Your task to perform on an android device: Open Wikipedia Image 0: 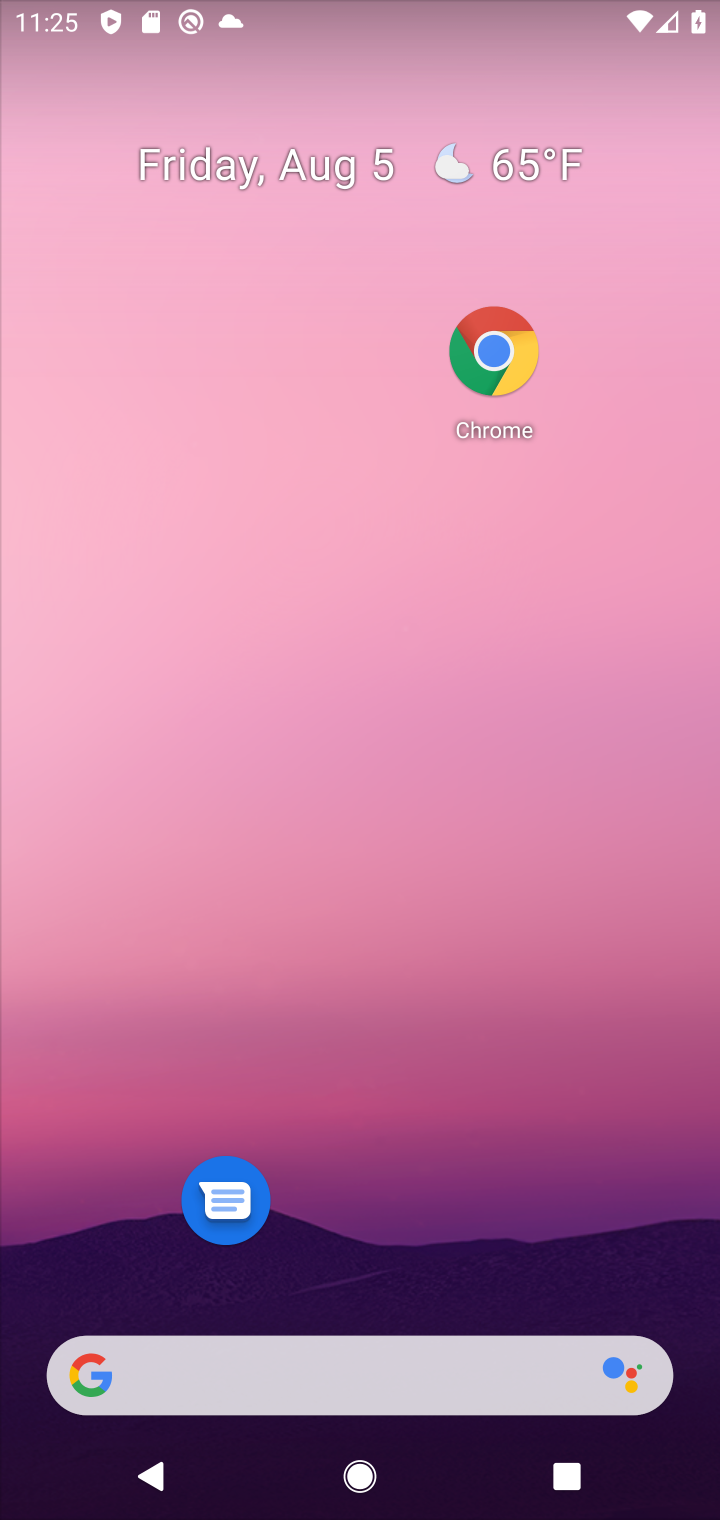
Step 0: press home button
Your task to perform on an android device: Open Wikipedia Image 1: 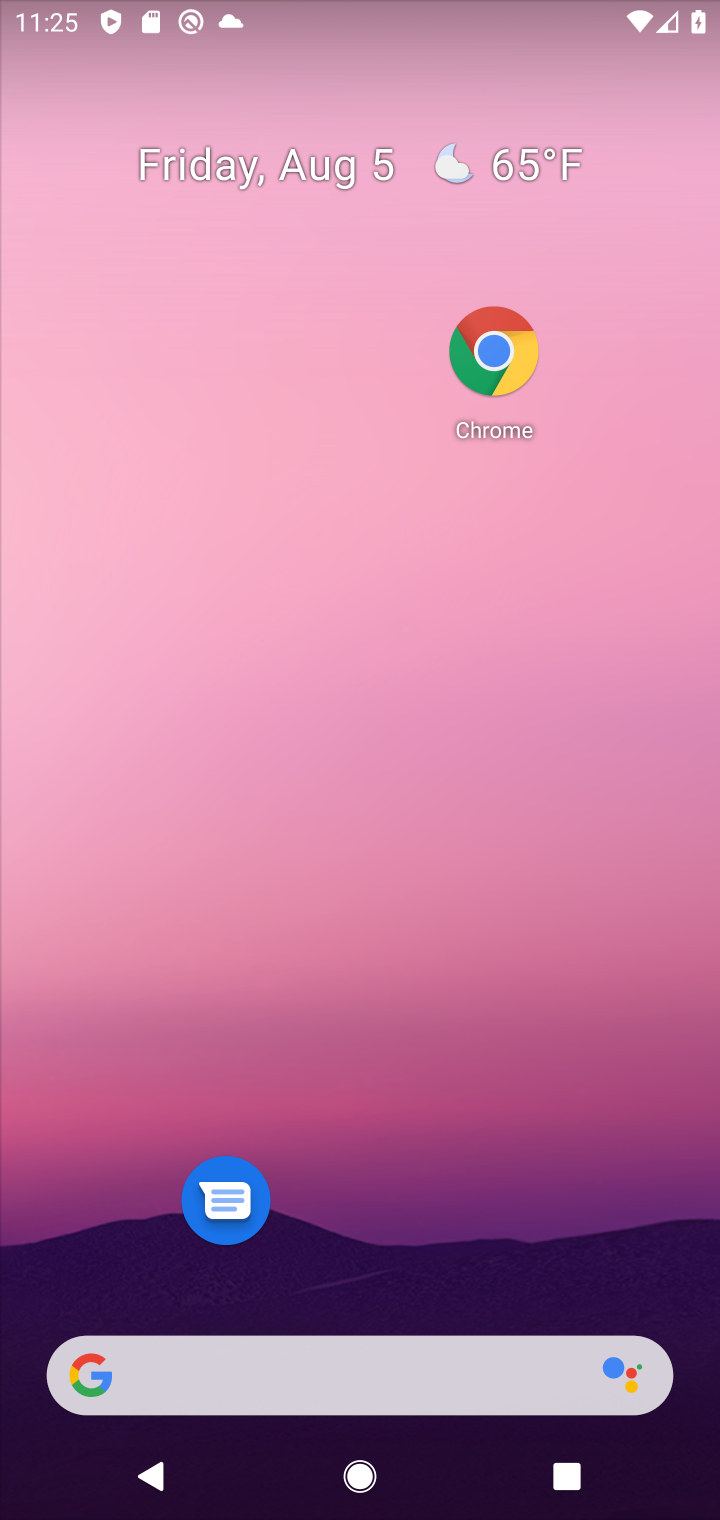
Step 1: click (540, 976)
Your task to perform on an android device: Open Wikipedia Image 2: 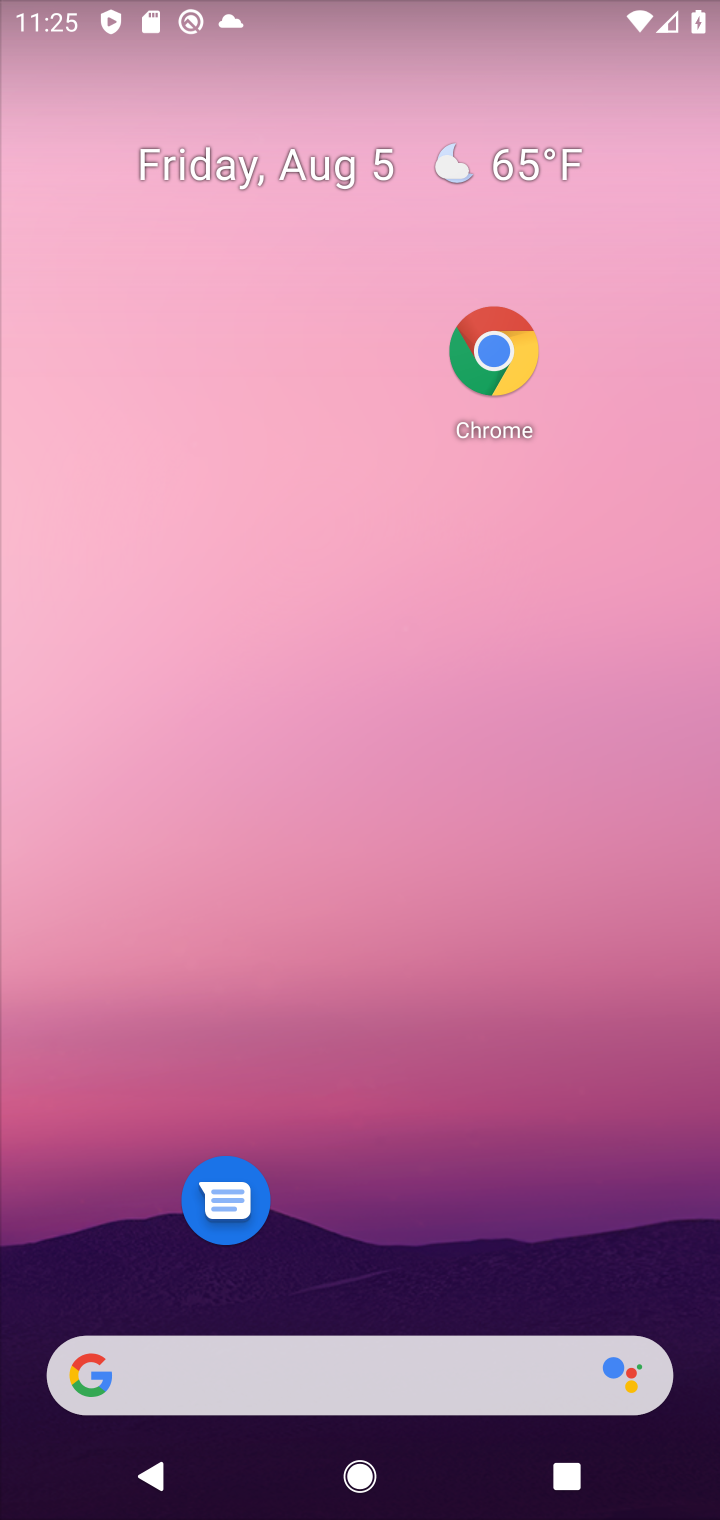
Step 2: click (515, 373)
Your task to perform on an android device: Open Wikipedia Image 3: 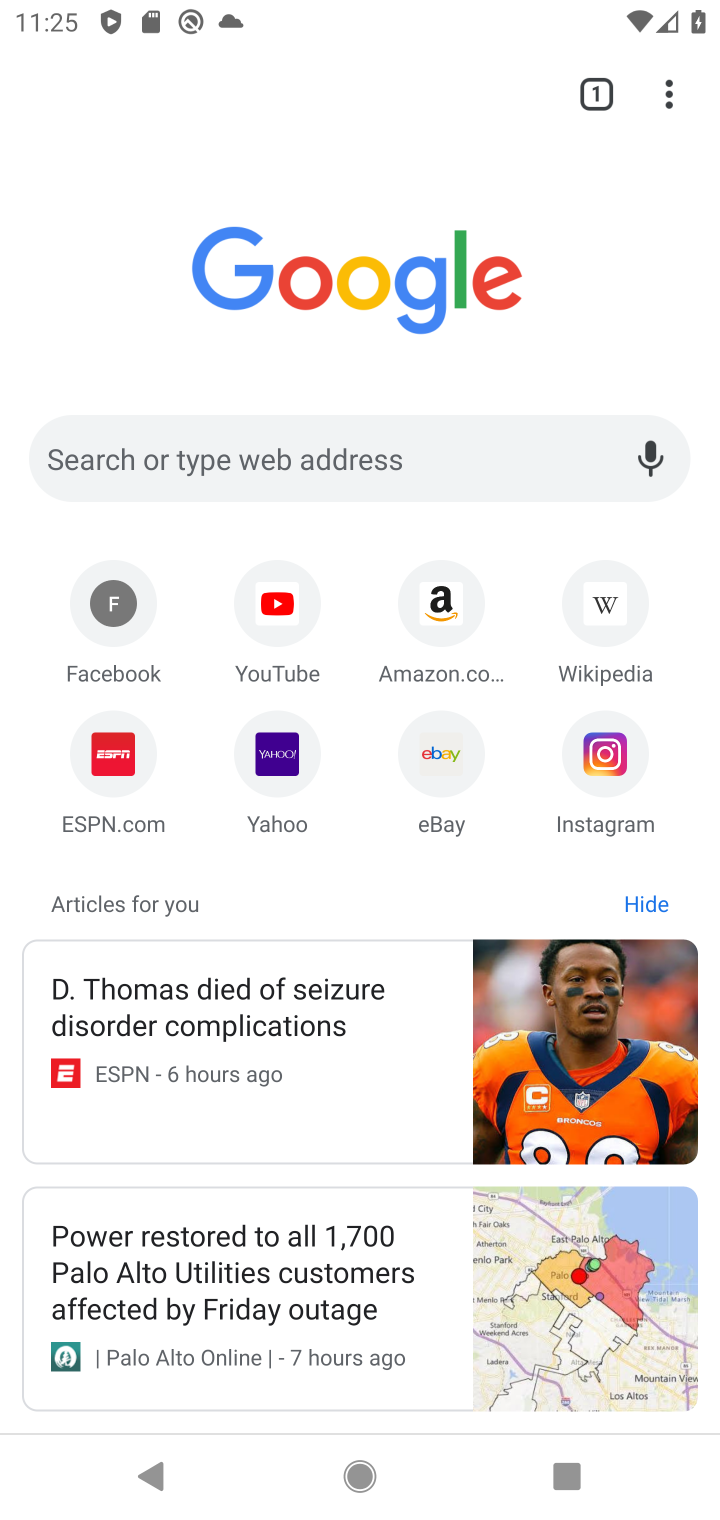
Step 3: click (612, 625)
Your task to perform on an android device: Open Wikipedia Image 4: 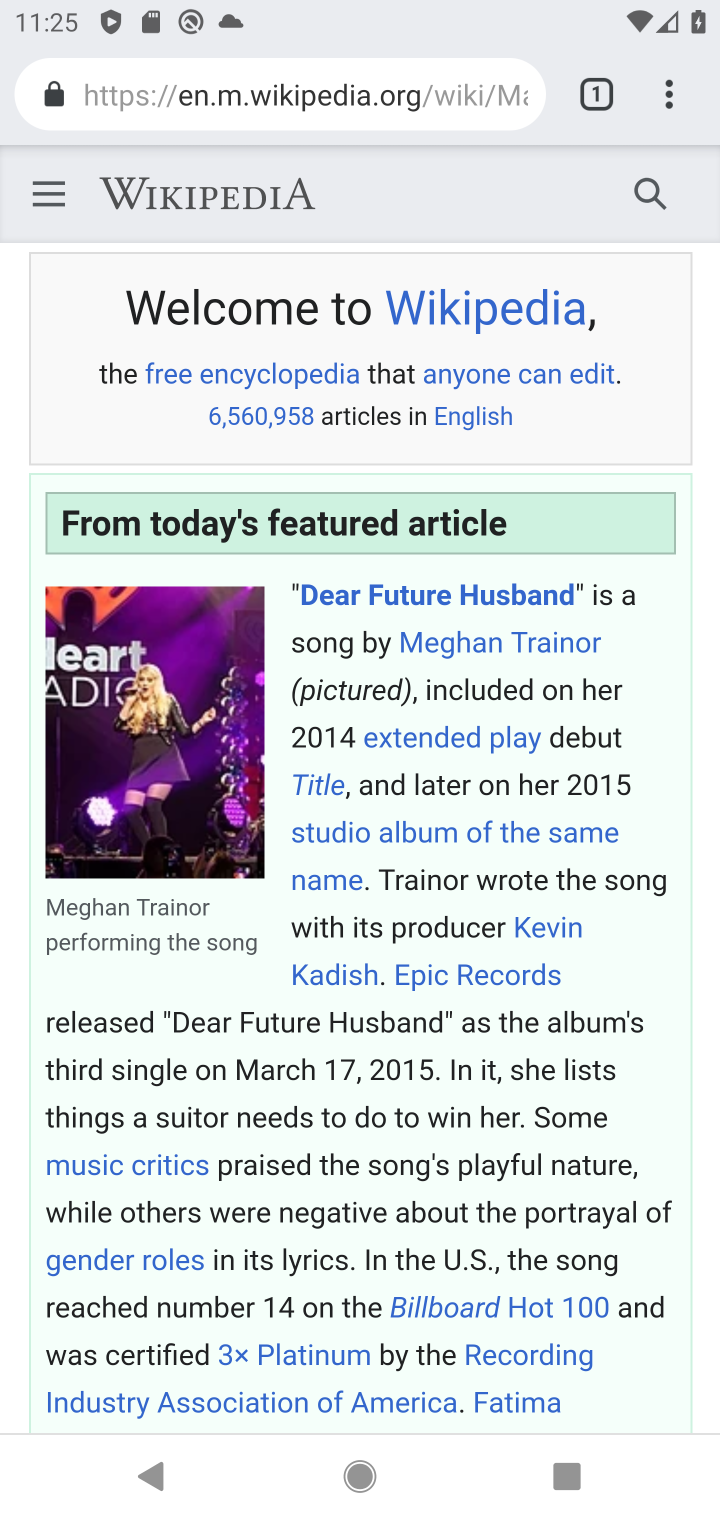
Step 4: task complete